Your task to perform on an android device: Go to wifi settings Image 0: 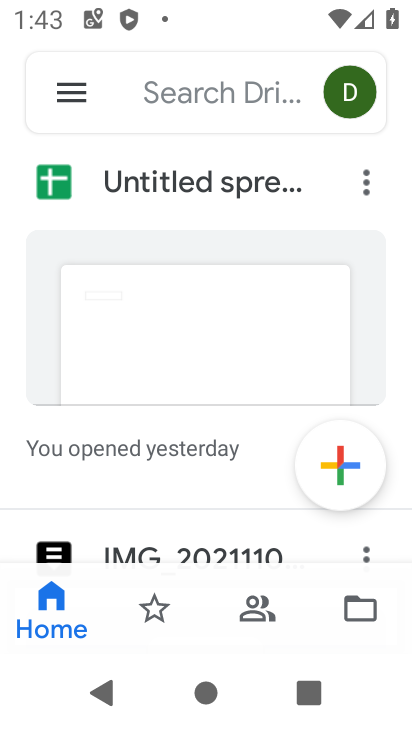
Step 0: press home button
Your task to perform on an android device: Go to wifi settings Image 1: 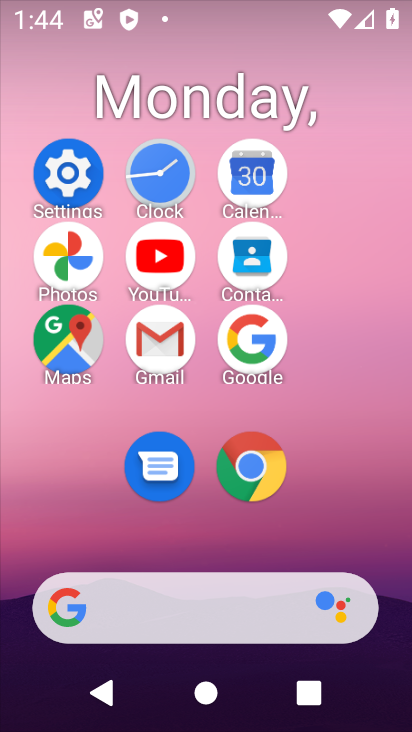
Step 1: click (70, 179)
Your task to perform on an android device: Go to wifi settings Image 2: 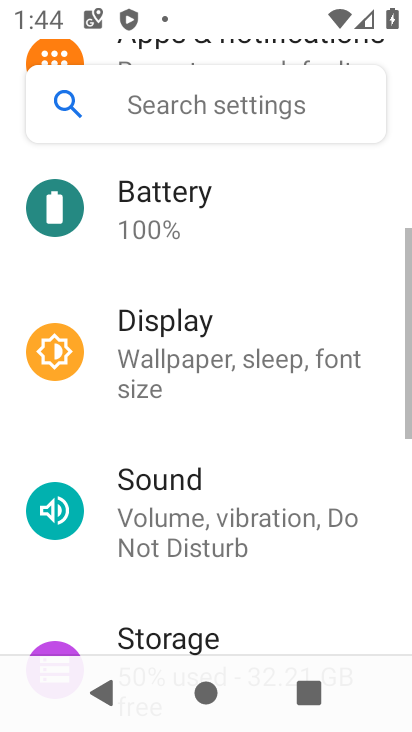
Step 2: drag from (307, 206) to (327, 550)
Your task to perform on an android device: Go to wifi settings Image 3: 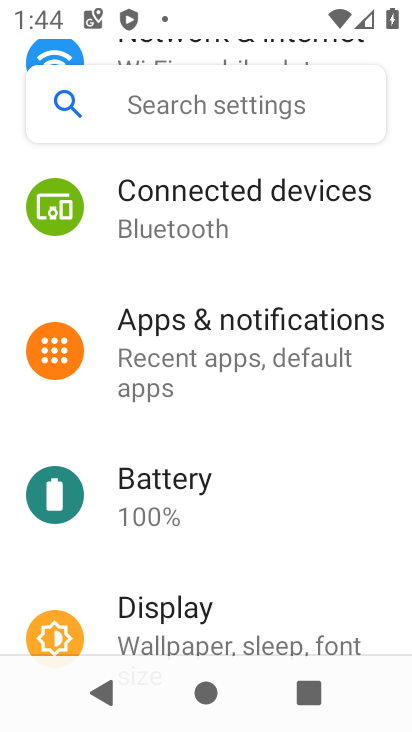
Step 3: drag from (334, 266) to (384, 518)
Your task to perform on an android device: Go to wifi settings Image 4: 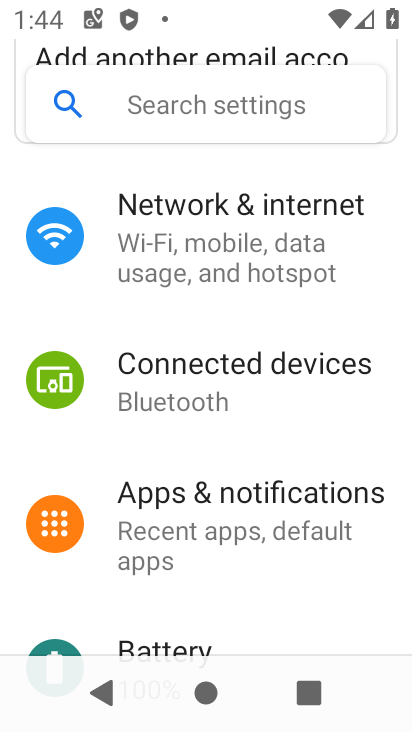
Step 4: click (278, 291)
Your task to perform on an android device: Go to wifi settings Image 5: 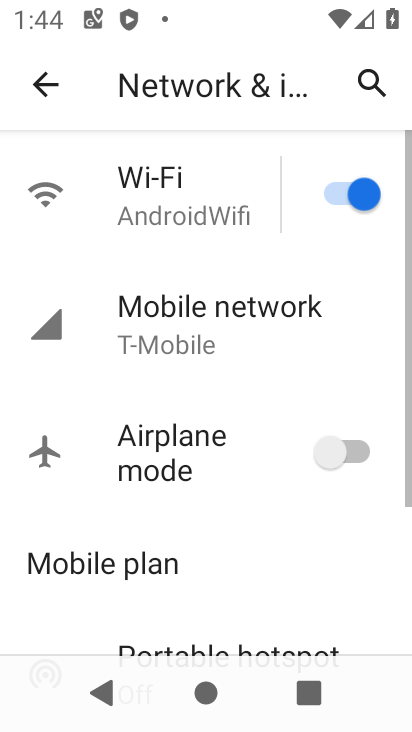
Step 5: click (194, 189)
Your task to perform on an android device: Go to wifi settings Image 6: 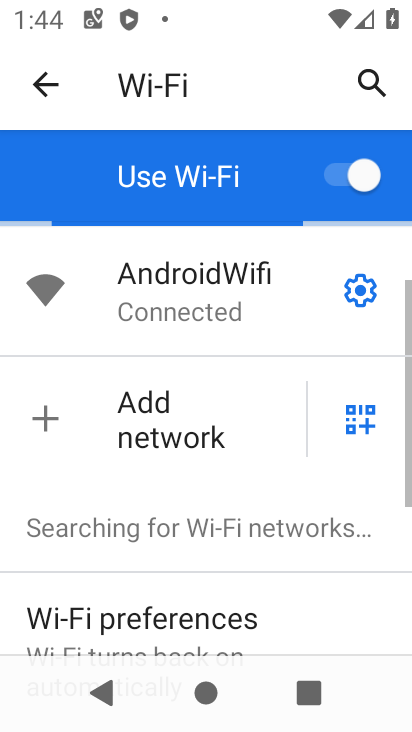
Step 6: click (364, 281)
Your task to perform on an android device: Go to wifi settings Image 7: 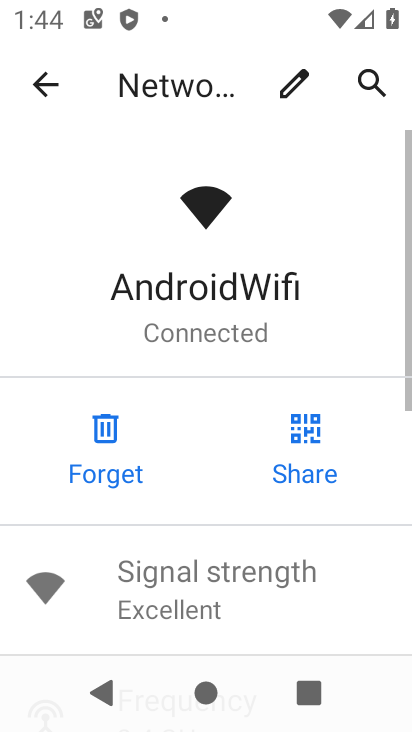
Step 7: task complete